Your task to perform on an android device: turn on airplane mode Image 0: 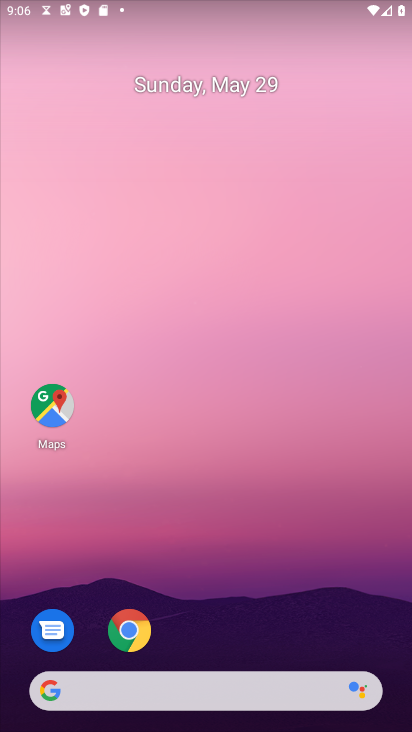
Step 0: drag from (263, 617) to (212, 148)
Your task to perform on an android device: turn on airplane mode Image 1: 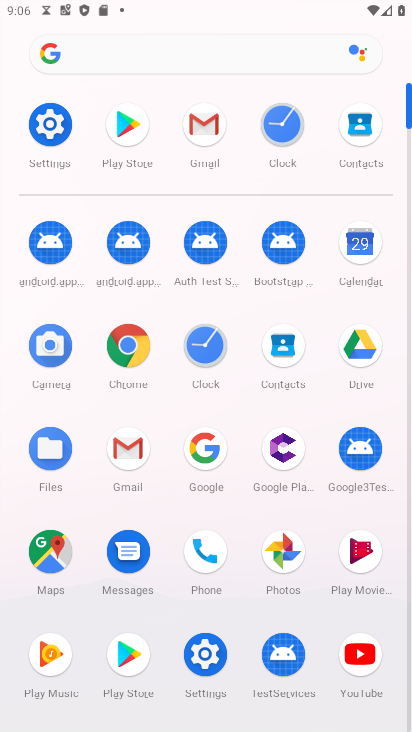
Step 1: click (43, 129)
Your task to perform on an android device: turn on airplane mode Image 2: 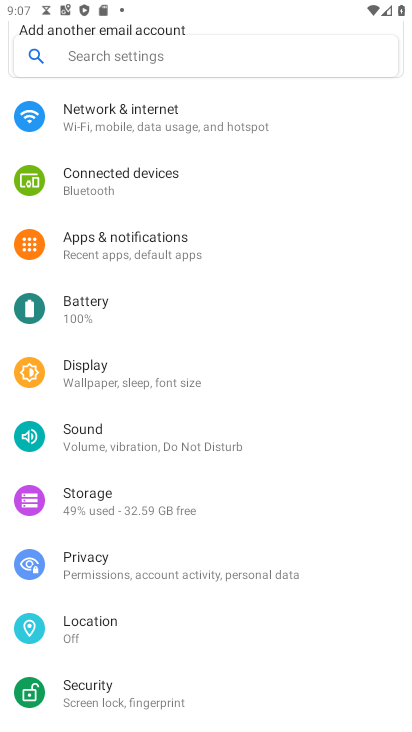
Step 2: click (92, 125)
Your task to perform on an android device: turn on airplane mode Image 3: 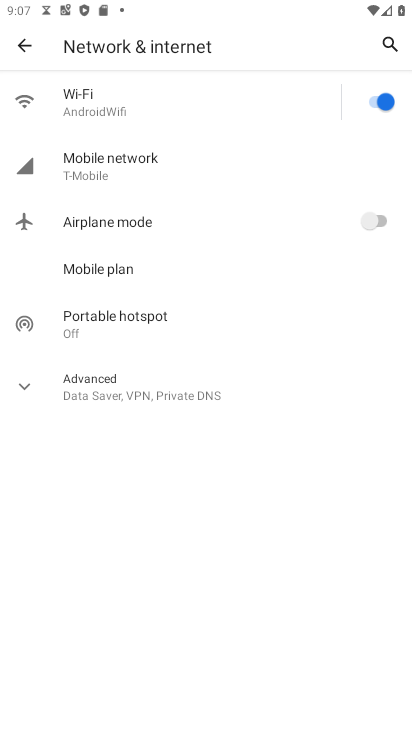
Step 3: click (385, 224)
Your task to perform on an android device: turn on airplane mode Image 4: 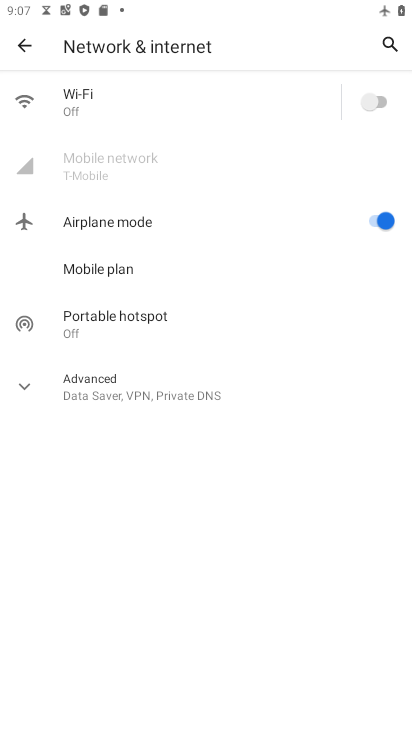
Step 4: task complete